Your task to perform on an android device: Open wifi settings Image 0: 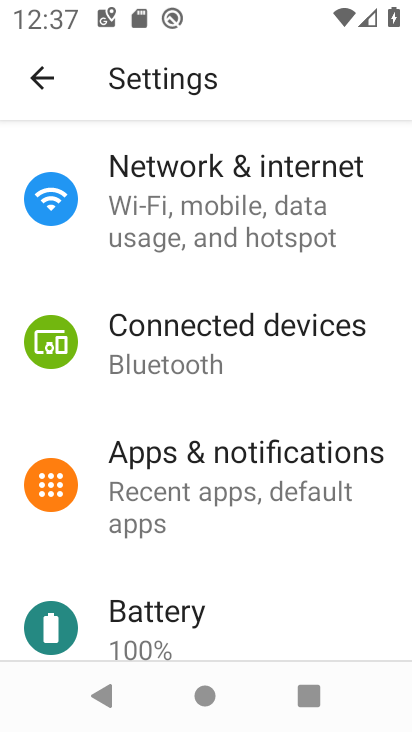
Step 0: press home button
Your task to perform on an android device: Open wifi settings Image 1: 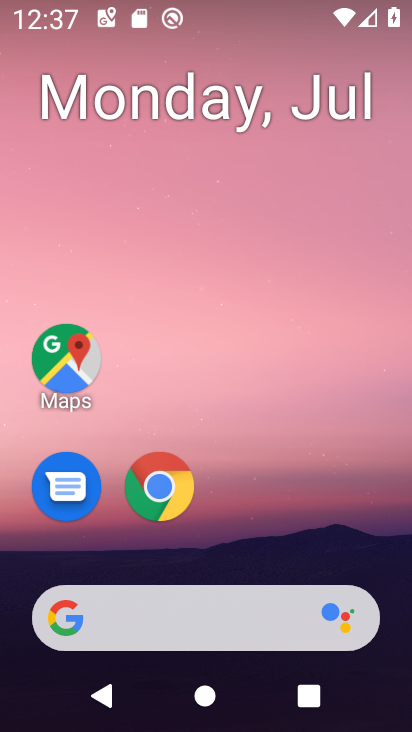
Step 1: drag from (371, 538) to (382, 98)
Your task to perform on an android device: Open wifi settings Image 2: 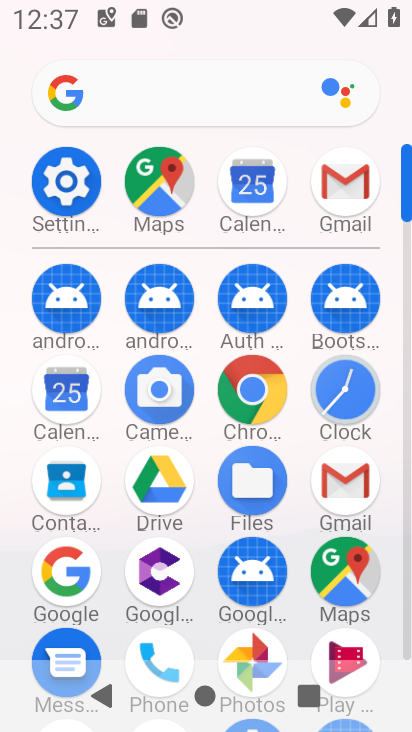
Step 2: click (82, 185)
Your task to perform on an android device: Open wifi settings Image 3: 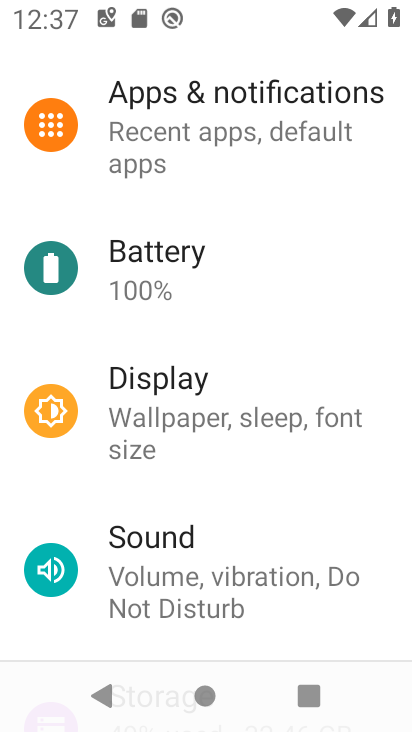
Step 3: drag from (331, 262) to (335, 374)
Your task to perform on an android device: Open wifi settings Image 4: 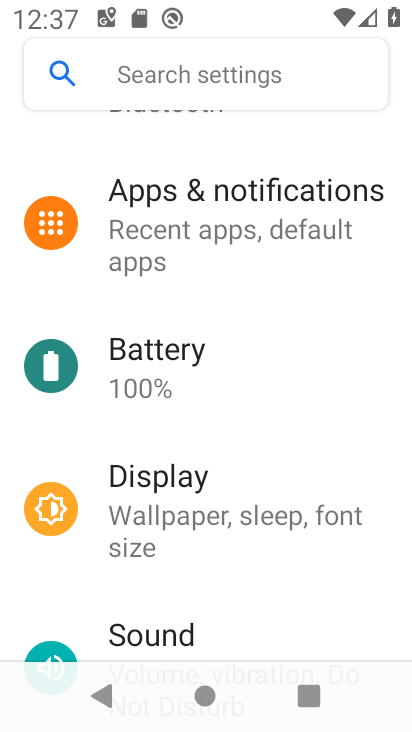
Step 4: drag from (340, 291) to (341, 387)
Your task to perform on an android device: Open wifi settings Image 5: 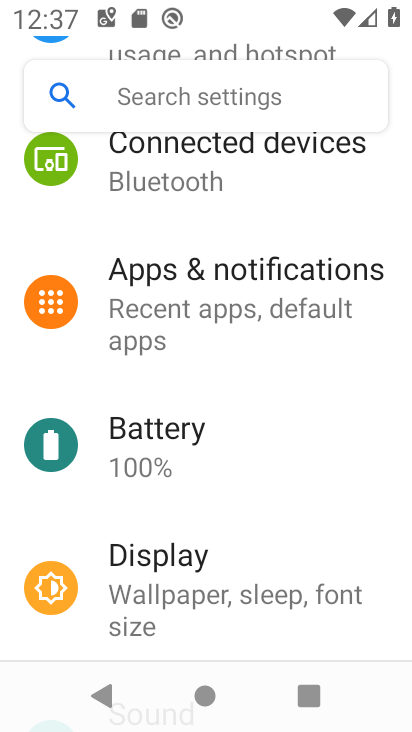
Step 5: drag from (371, 309) to (365, 375)
Your task to perform on an android device: Open wifi settings Image 6: 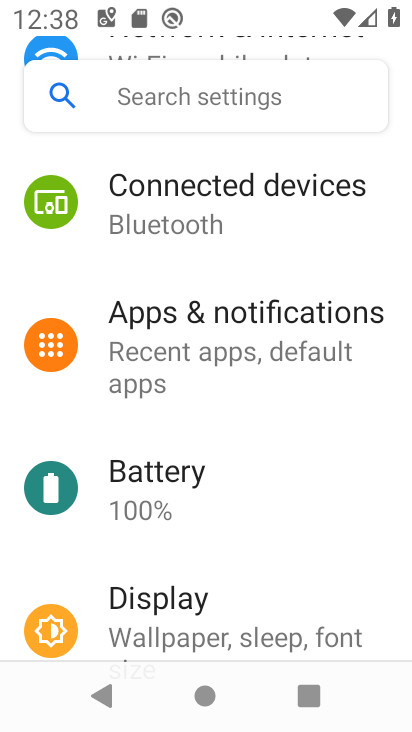
Step 6: drag from (379, 253) to (366, 355)
Your task to perform on an android device: Open wifi settings Image 7: 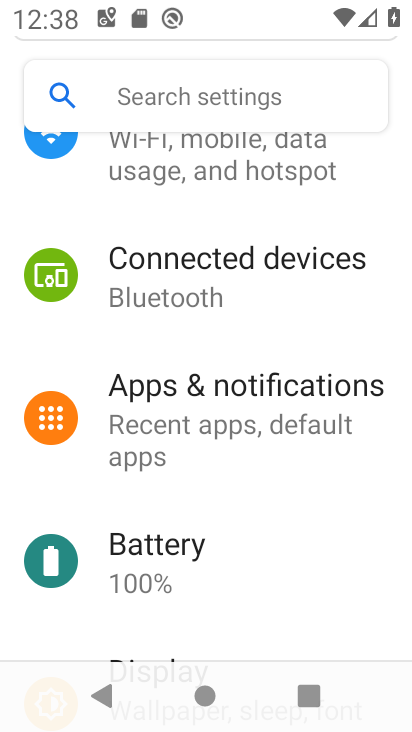
Step 7: drag from (388, 224) to (378, 345)
Your task to perform on an android device: Open wifi settings Image 8: 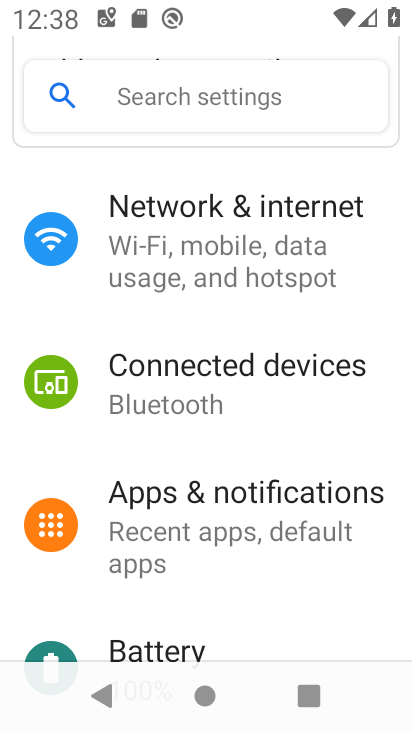
Step 8: drag from (375, 239) to (365, 387)
Your task to perform on an android device: Open wifi settings Image 9: 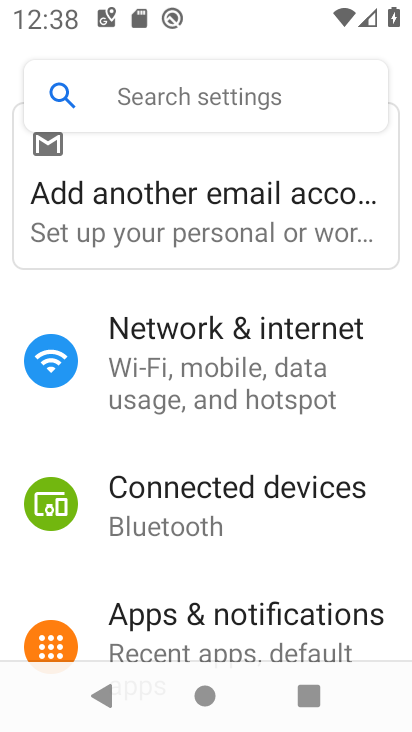
Step 9: click (332, 366)
Your task to perform on an android device: Open wifi settings Image 10: 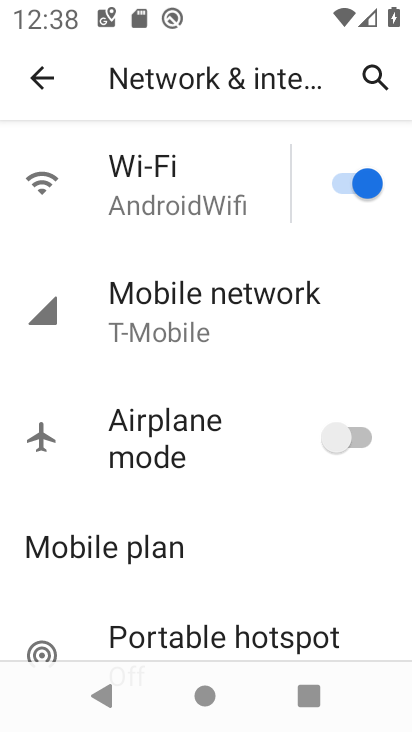
Step 10: click (222, 207)
Your task to perform on an android device: Open wifi settings Image 11: 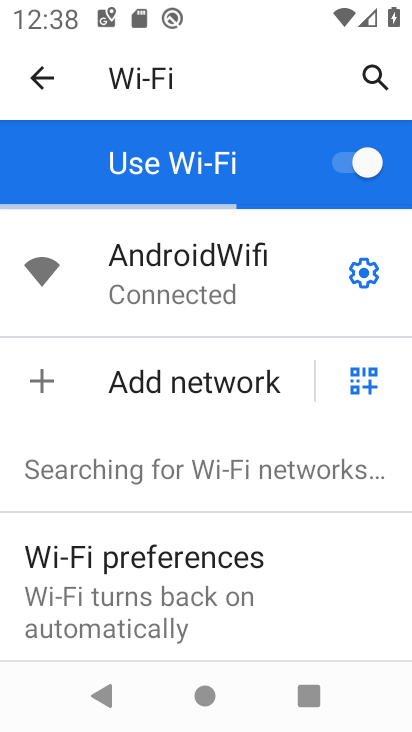
Step 11: task complete